Your task to perform on an android device: Search for vegetarian restaurants on Maps Image 0: 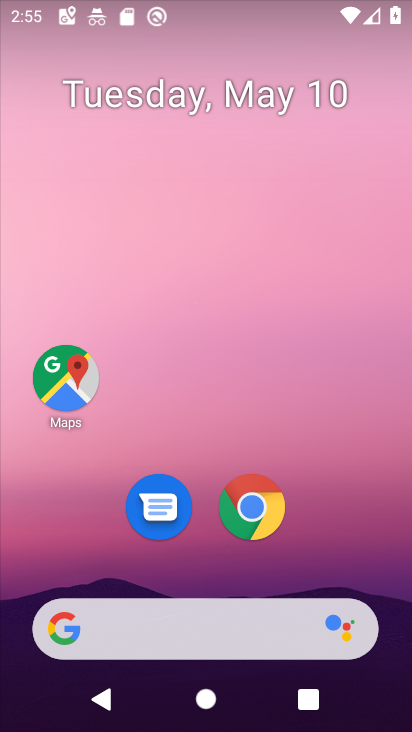
Step 0: click (67, 374)
Your task to perform on an android device: Search for vegetarian restaurants on Maps Image 1: 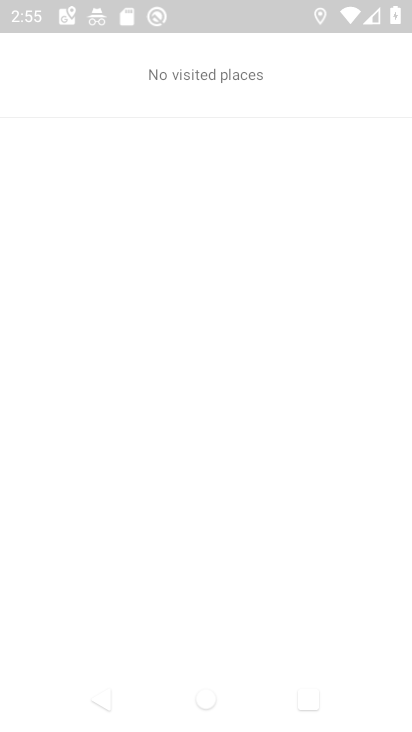
Step 1: click (107, 704)
Your task to perform on an android device: Search for vegetarian restaurants on Maps Image 2: 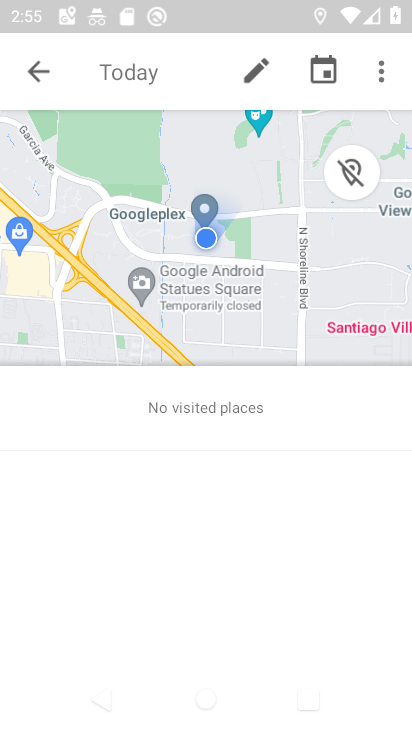
Step 2: click (103, 698)
Your task to perform on an android device: Search for vegetarian restaurants on Maps Image 3: 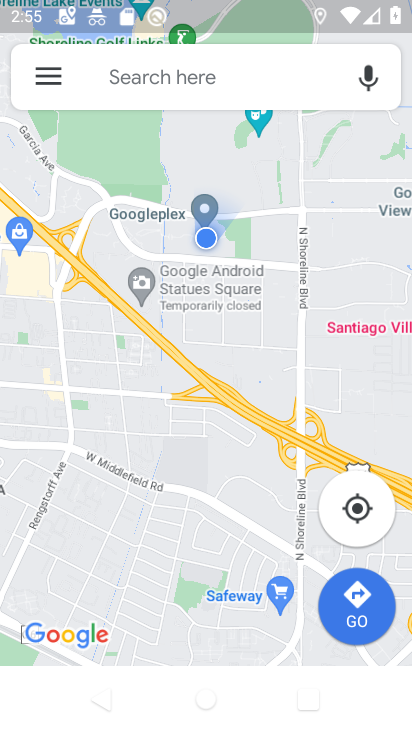
Step 3: click (114, 74)
Your task to perform on an android device: Search for vegetarian restaurants on Maps Image 4: 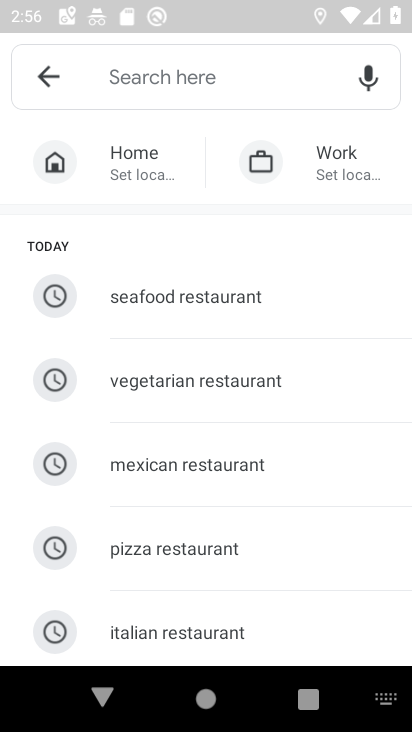
Step 4: type "vegetarian restaurants"
Your task to perform on an android device: Search for vegetarian restaurants on Maps Image 5: 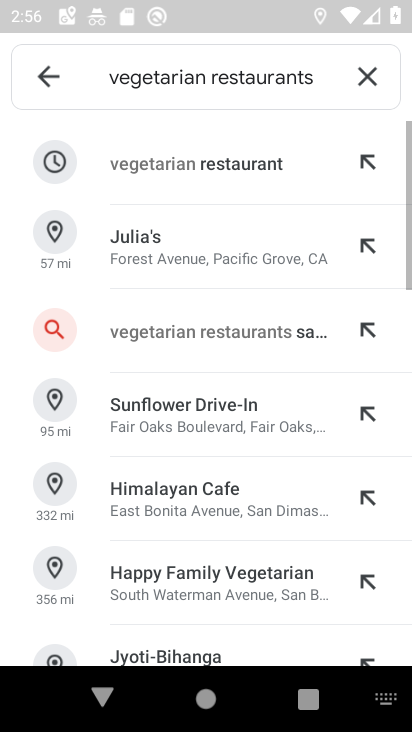
Step 5: click (199, 162)
Your task to perform on an android device: Search for vegetarian restaurants on Maps Image 6: 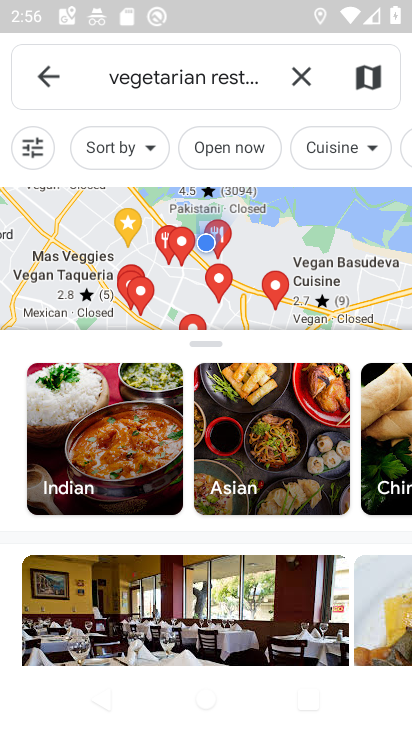
Step 6: task complete